Your task to perform on an android device: Open Chrome and go to the settings page Image 0: 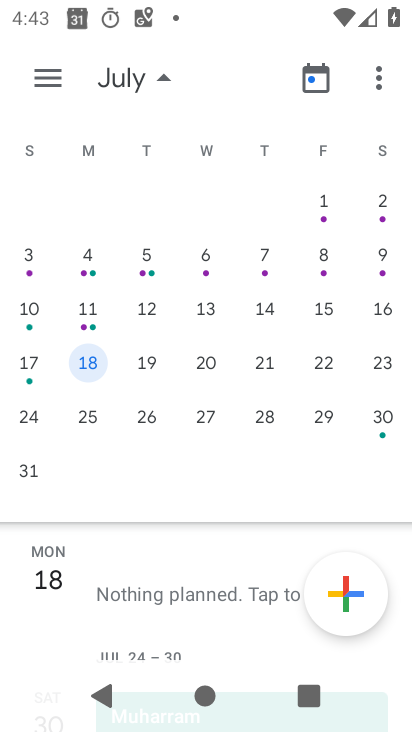
Step 0: press back button
Your task to perform on an android device: Open Chrome and go to the settings page Image 1: 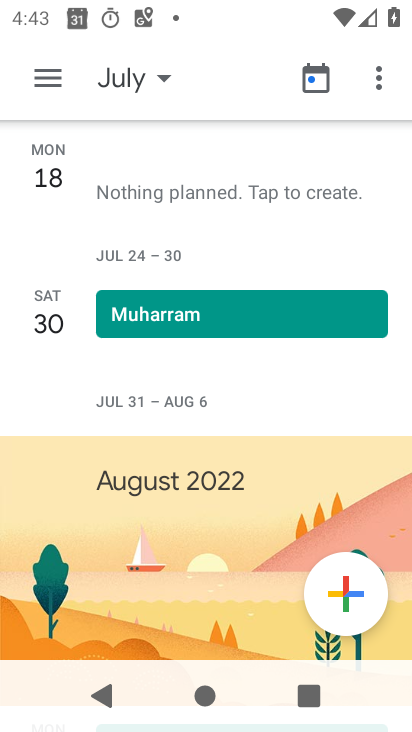
Step 1: press back button
Your task to perform on an android device: Open Chrome and go to the settings page Image 2: 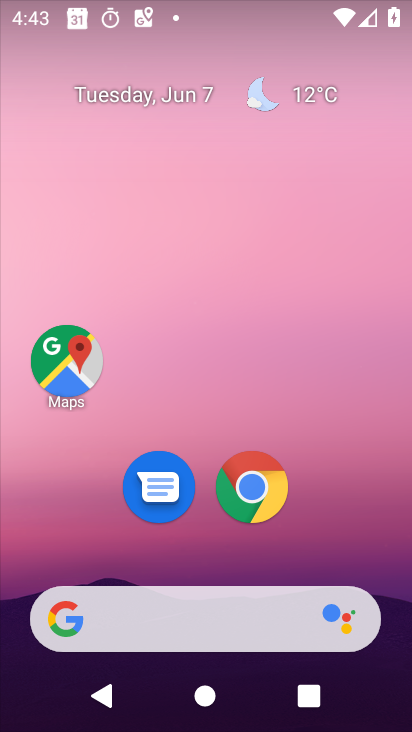
Step 2: click (269, 476)
Your task to perform on an android device: Open Chrome and go to the settings page Image 3: 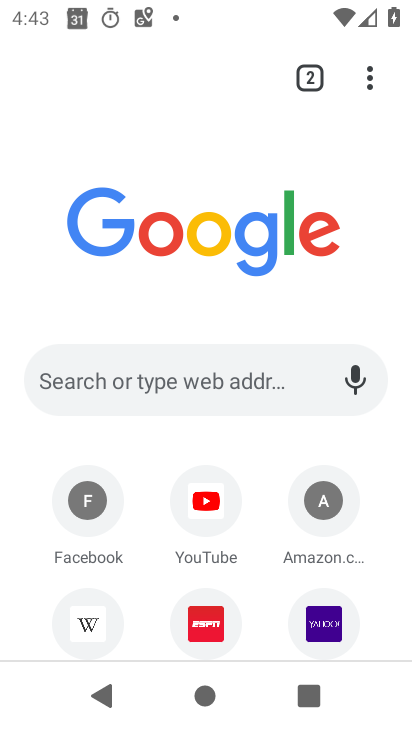
Step 3: task complete